Your task to perform on an android device: check battery use Image 0: 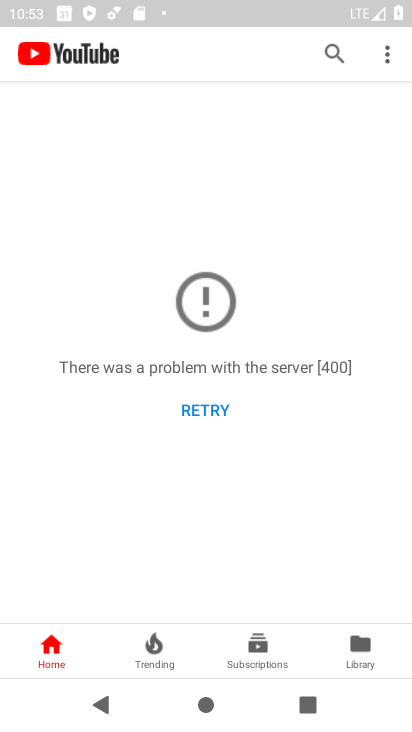
Step 0: press home button
Your task to perform on an android device: check battery use Image 1: 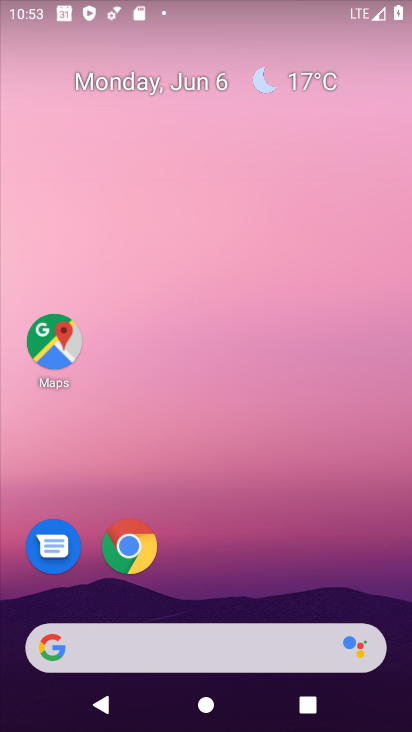
Step 1: drag from (275, 569) to (302, 198)
Your task to perform on an android device: check battery use Image 2: 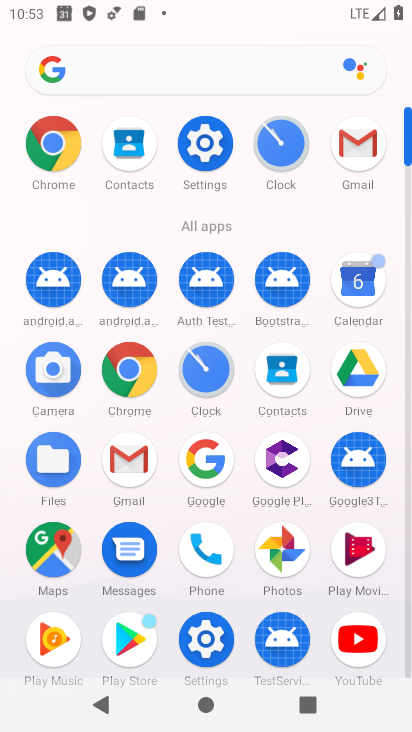
Step 2: click (205, 151)
Your task to perform on an android device: check battery use Image 3: 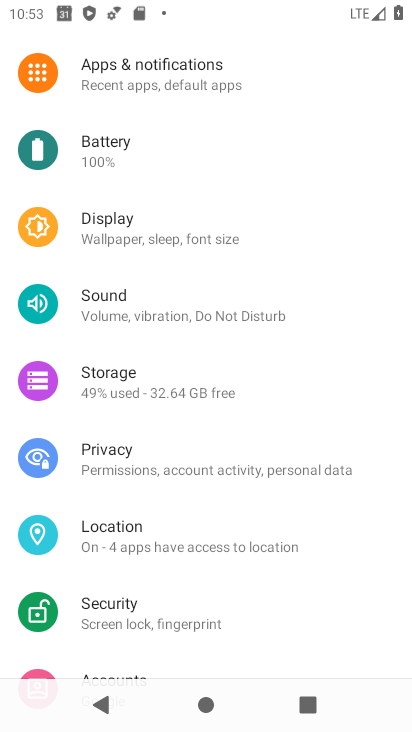
Step 3: click (112, 155)
Your task to perform on an android device: check battery use Image 4: 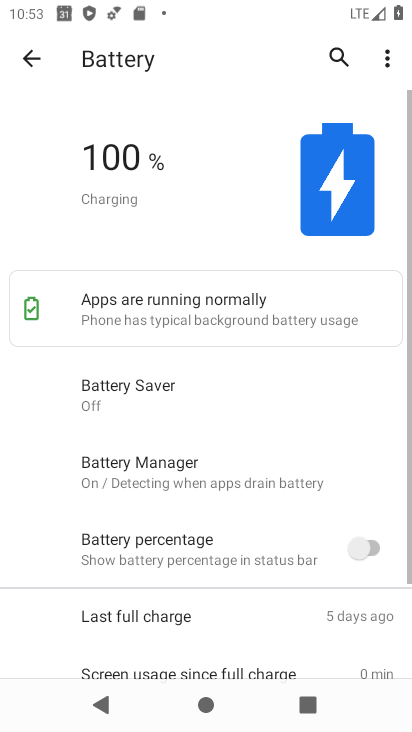
Step 4: click (390, 56)
Your task to perform on an android device: check battery use Image 5: 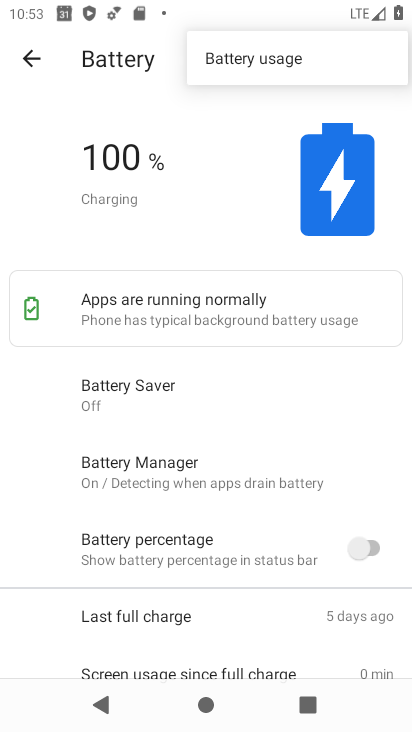
Step 5: click (290, 53)
Your task to perform on an android device: check battery use Image 6: 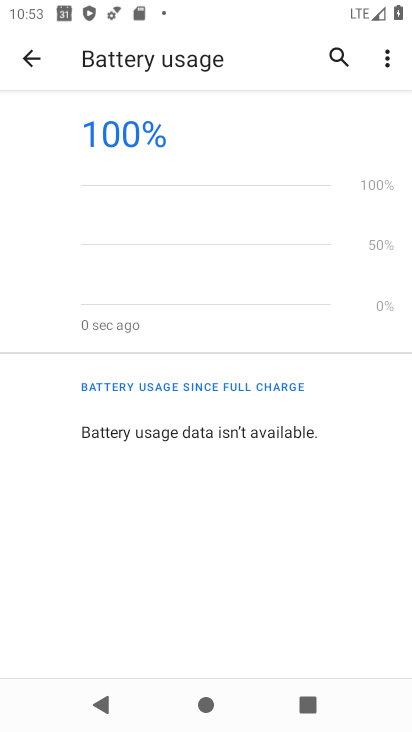
Step 6: task complete